Your task to perform on an android device: Open calendar and show me the third week of next month Image 0: 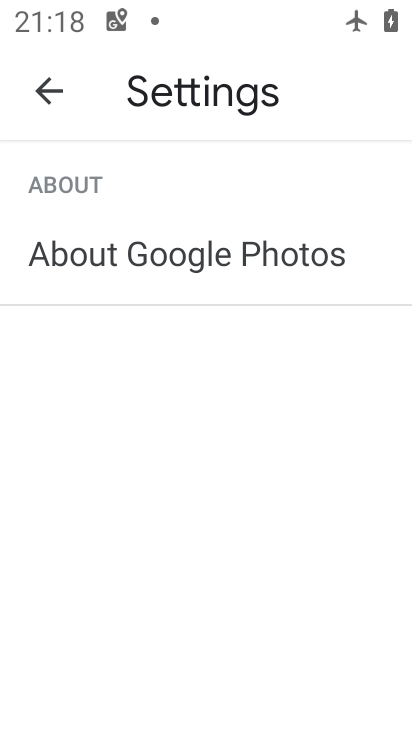
Step 0: click (56, 88)
Your task to perform on an android device: Open calendar and show me the third week of next month Image 1: 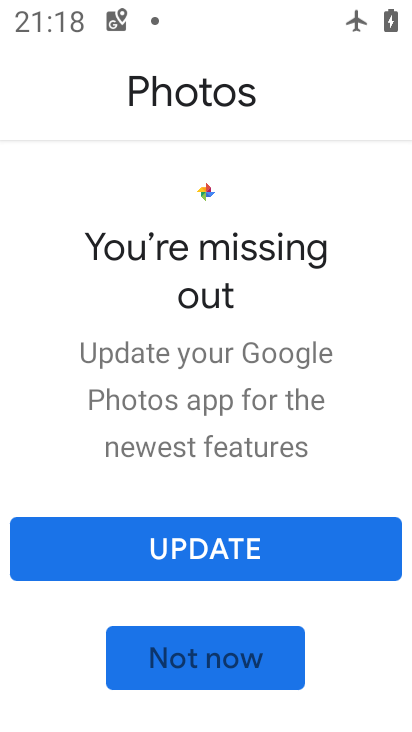
Step 1: press back button
Your task to perform on an android device: Open calendar and show me the third week of next month Image 2: 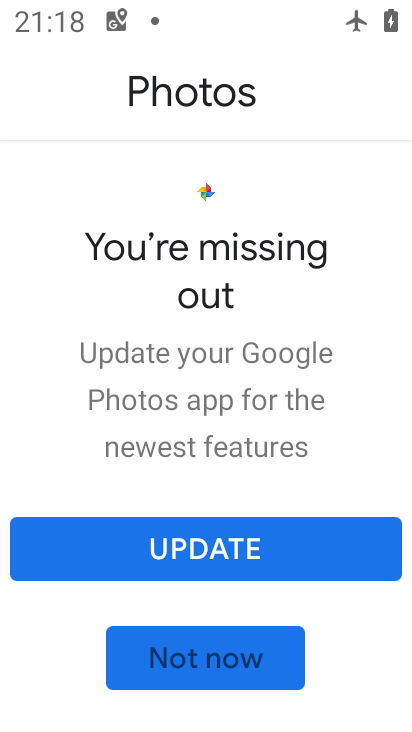
Step 2: press back button
Your task to perform on an android device: Open calendar and show me the third week of next month Image 3: 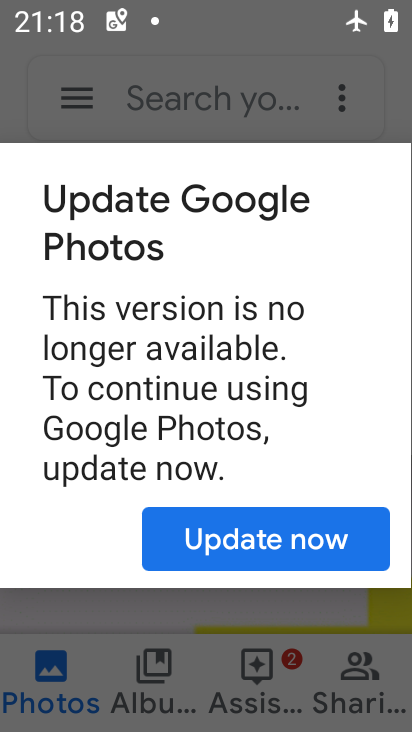
Step 3: press back button
Your task to perform on an android device: Open calendar and show me the third week of next month Image 4: 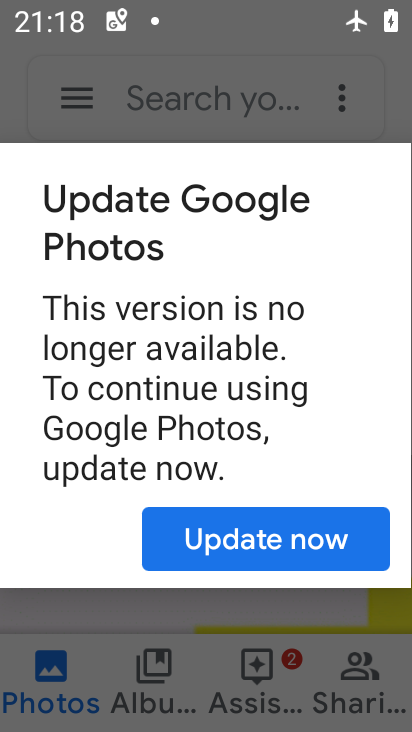
Step 4: click (209, 660)
Your task to perform on an android device: Open calendar and show me the third week of next month Image 5: 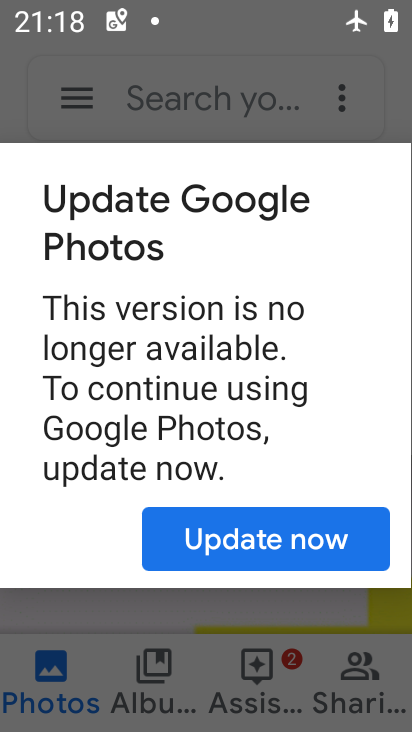
Step 5: press home button
Your task to perform on an android device: Open calendar and show me the third week of next month Image 6: 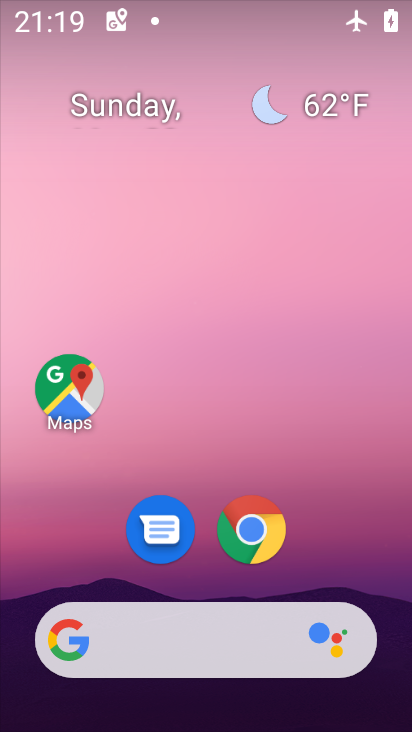
Step 6: drag from (349, 681) to (229, 88)
Your task to perform on an android device: Open calendar and show me the third week of next month Image 7: 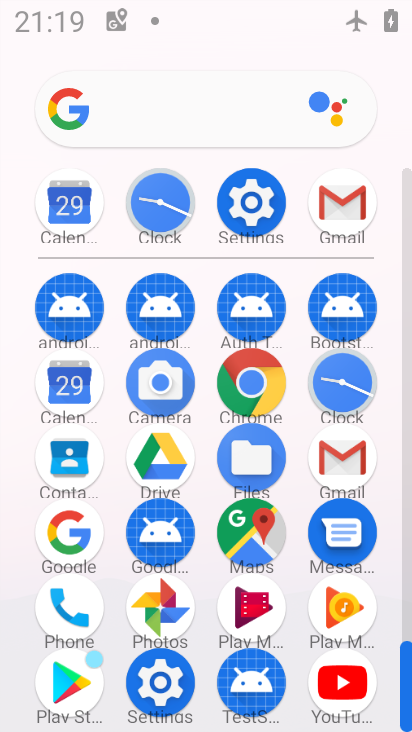
Step 7: drag from (246, 640) to (140, 45)
Your task to perform on an android device: Open calendar and show me the third week of next month Image 8: 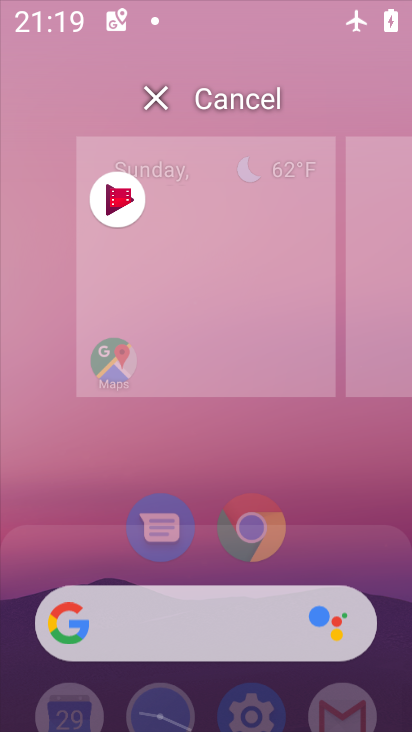
Step 8: click (165, 9)
Your task to perform on an android device: Open calendar and show me the third week of next month Image 9: 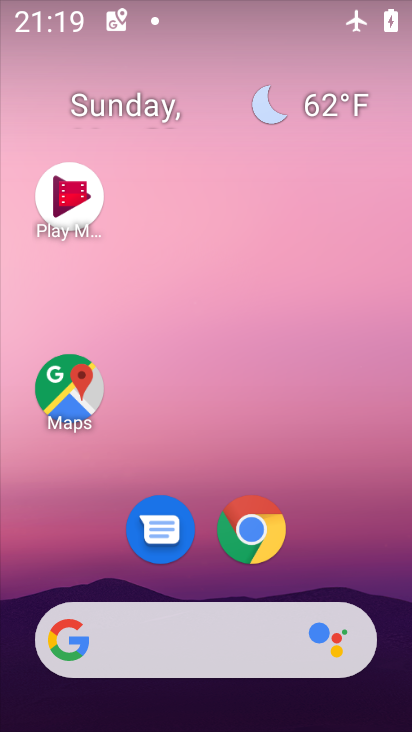
Step 9: press back button
Your task to perform on an android device: Open calendar and show me the third week of next month Image 10: 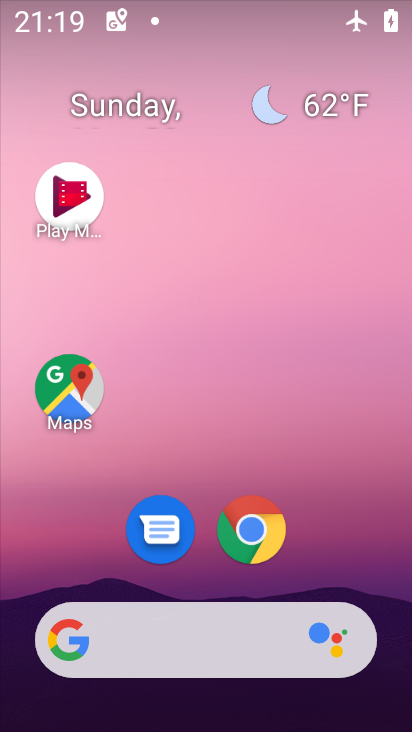
Step 10: press back button
Your task to perform on an android device: Open calendar and show me the third week of next month Image 11: 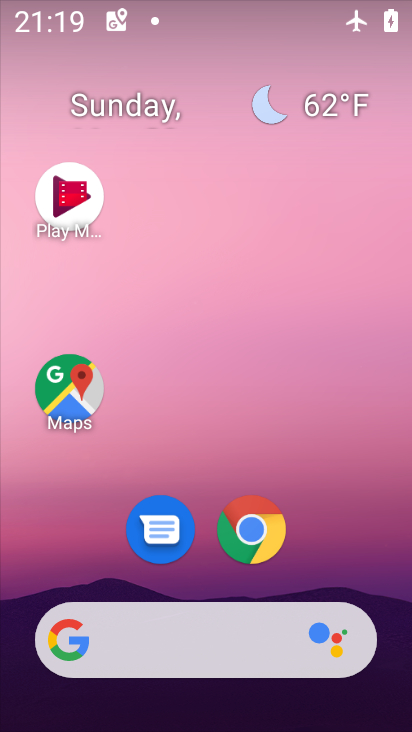
Step 11: press back button
Your task to perform on an android device: Open calendar and show me the third week of next month Image 12: 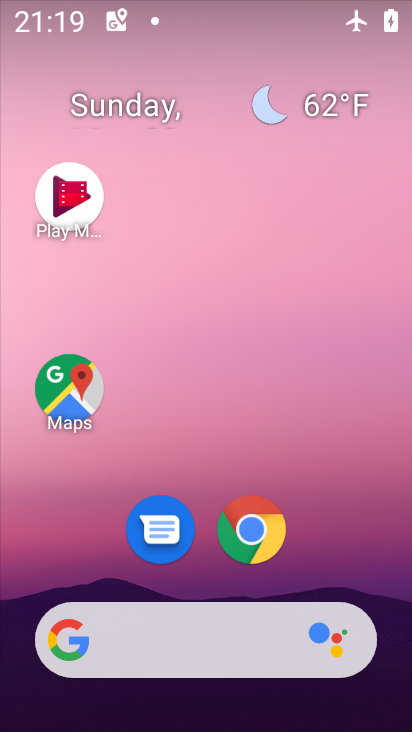
Step 12: drag from (317, 691) to (113, 2)
Your task to perform on an android device: Open calendar and show me the third week of next month Image 13: 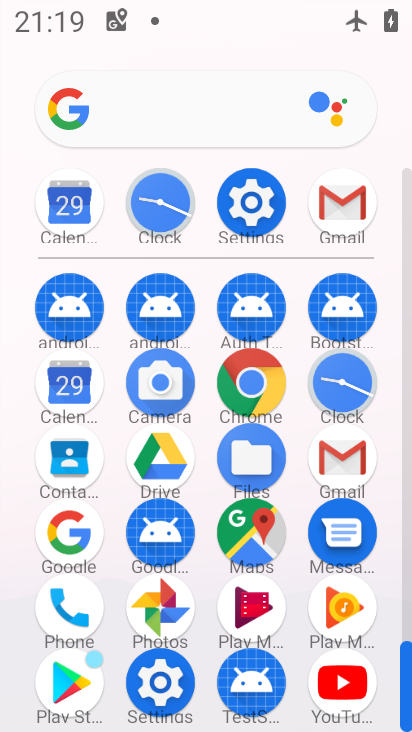
Step 13: drag from (295, 639) to (121, 73)
Your task to perform on an android device: Open calendar and show me the third week of next month Image 14: 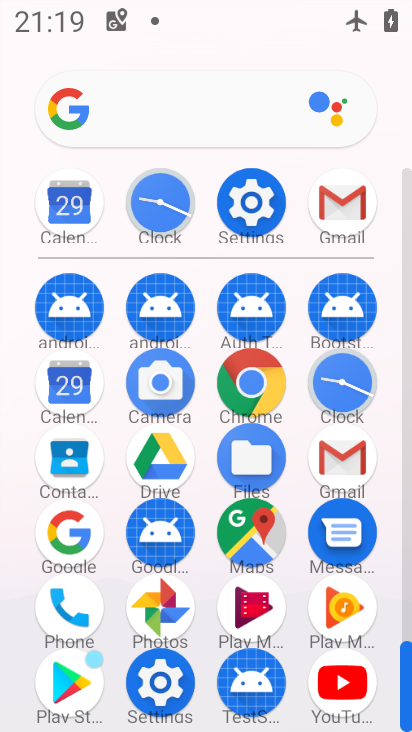
Step 14: click (59, 389)
Your task to perform on an android device: Open calendar and show me the third week of next month Image 15: 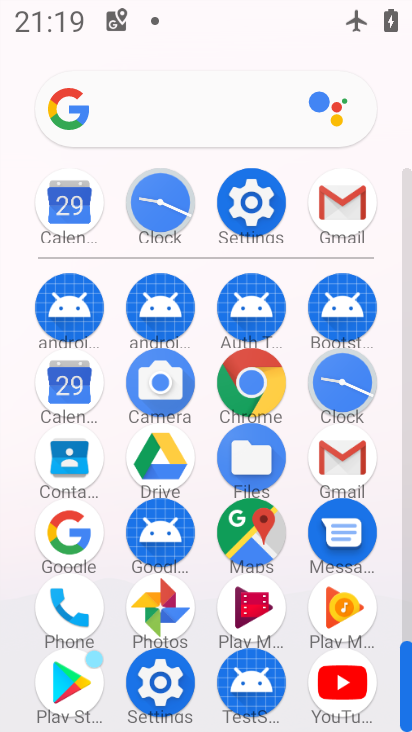
Step 15: click (67, 388)
Your task to perform on an android device: Open calendar and show me the third week of next month Image 16: 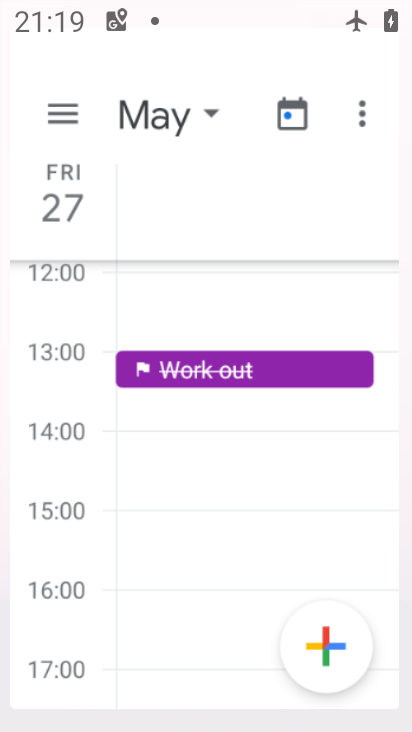
Step 16: click (71, 387)
Your task to perform on an android device: Open calendar and show me the third week of next month Image 17: 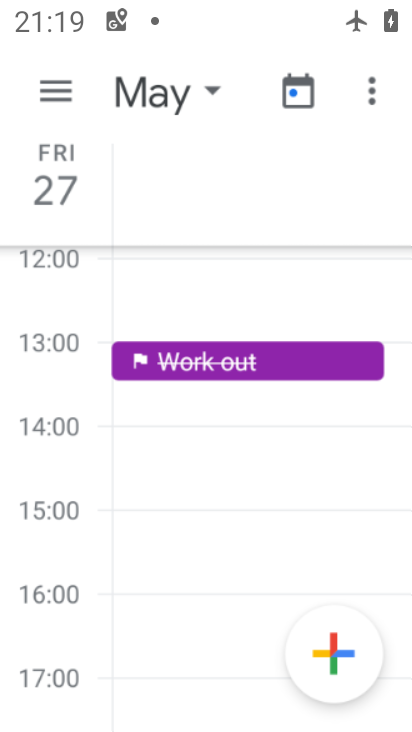
Step 17: click (71, 387)
Your task to perform on an android device: Open calendar and show me the third week of next month Image 18: 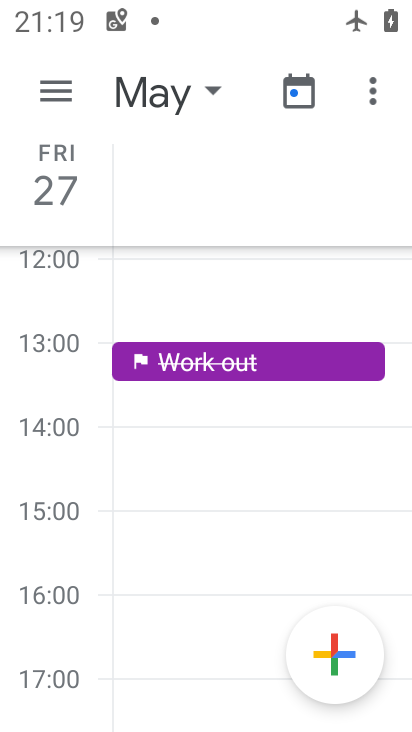
Step 18: click (71, 386)
Your task to perform on an android device: Open calendar and show me the third week of next month Image 19: 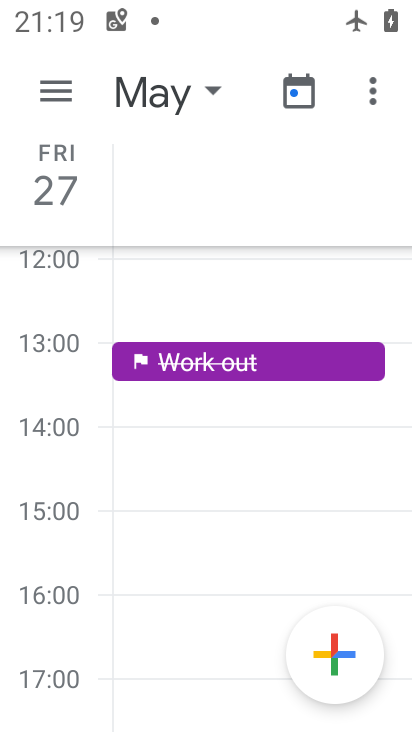
Step 19: click (369, 99)
Your task to perform on an android device: Open calendar and show me the third week of next month Image 20: 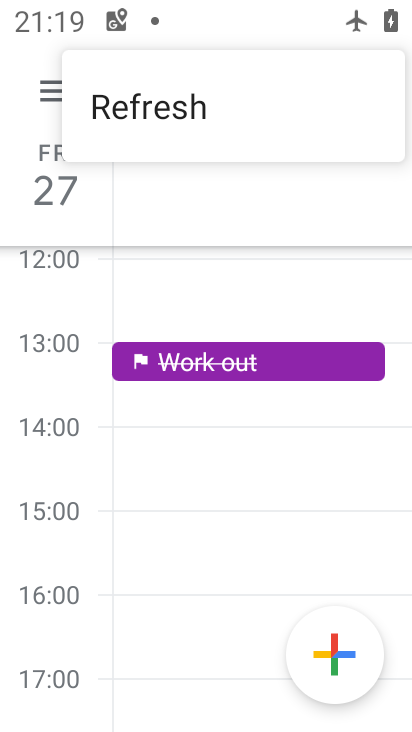
Step 20: click (211, 97)
Your task to perform on an android device: Open calendar and show me the third week of next month Image 21: 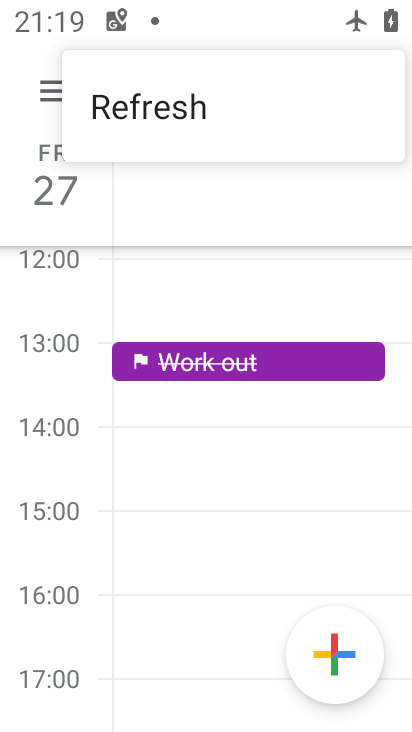
Step 21: click (218, 90)
Your task to perform on an android device: Open calendar and show me the third week of next month Image 22: 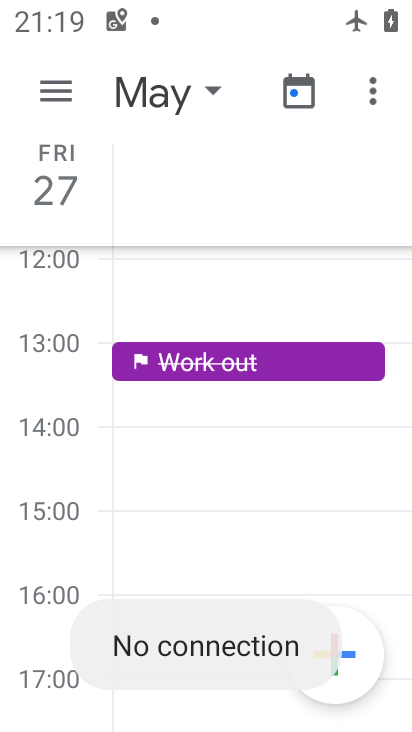
Step 22: click (191, 216)
Your task to perform on an android device: Open calendar and show me the third week of next month Image 23: 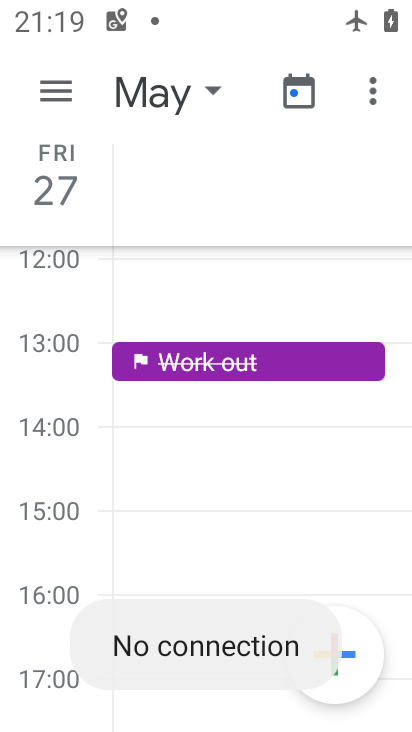
Step 23: click (191, 215)
Your task to perform on an android device: Open calendar and show me the third week of next month Image 24: 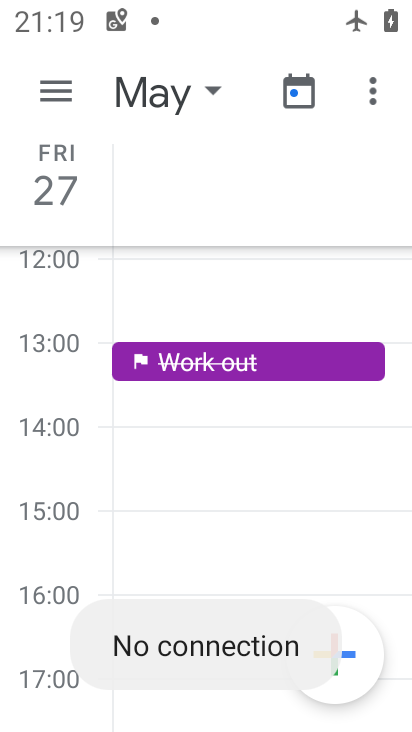
Step 24: click (216, 79)
Your task to perform on an android device: Open calendar and show me the third week of next month Image 25: 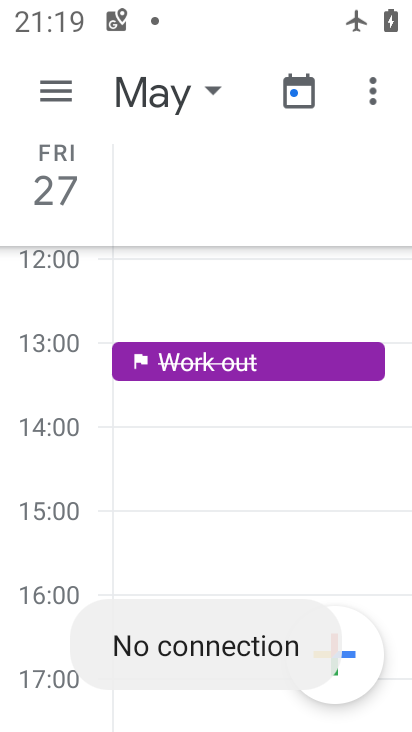
Step 25: click (217, 81)
Your task to perform on an android device: Open calendar and show me the third week of next month Image 26: 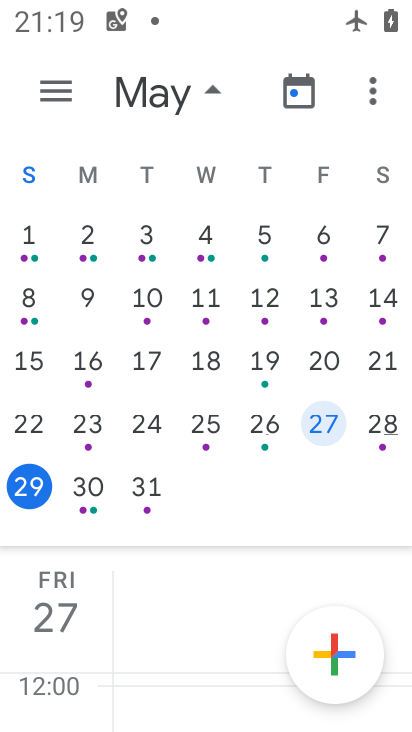
Step 26: drag from (293, 329) to (8, 363)
Your task to perform on an android device: Open calendar and show me the third week of next month Image 27: 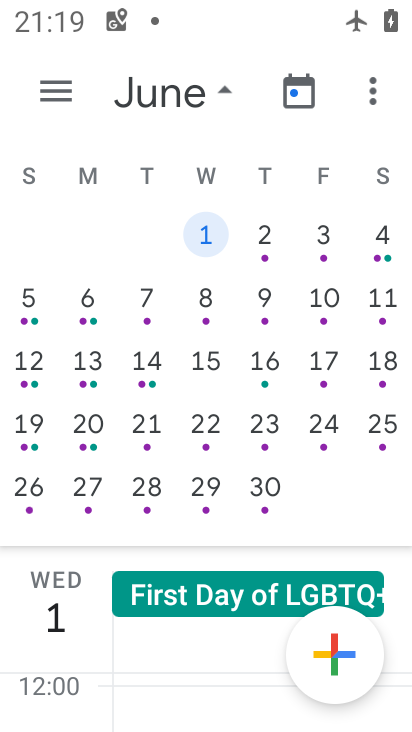
Step 27: click (204, 360)
Your task to perform on an android device: Open calendar and show me the third week of next month Image 28: 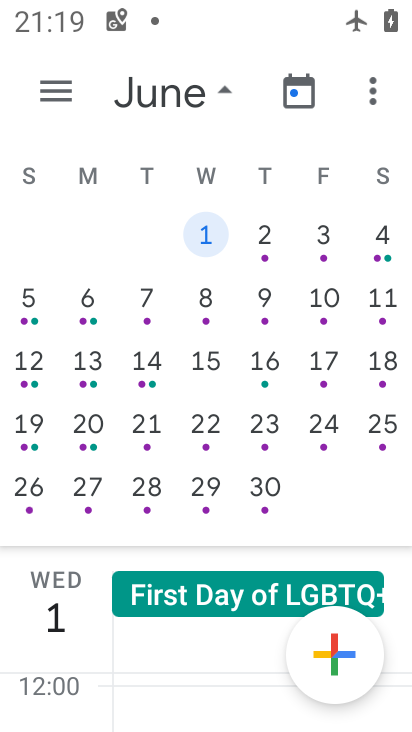
Step 28: click (205, 358)
Your task to perform on an android device: Open calendar and show me the third week of next month Image 29: 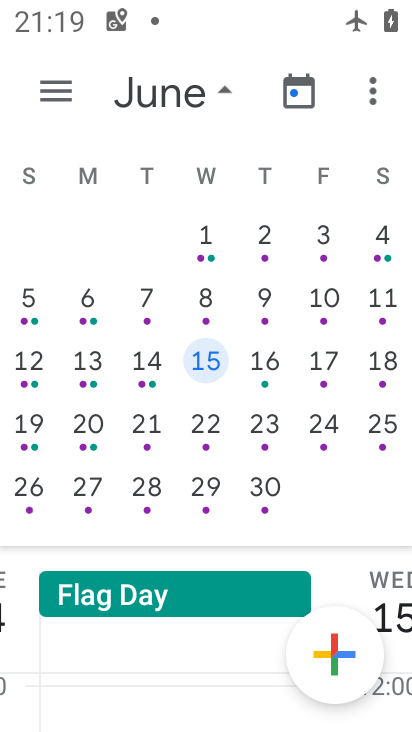
Step 29: click (205, 358)
Your task to perform on an android device: Open calendar and show me the third week of next month Image 30: 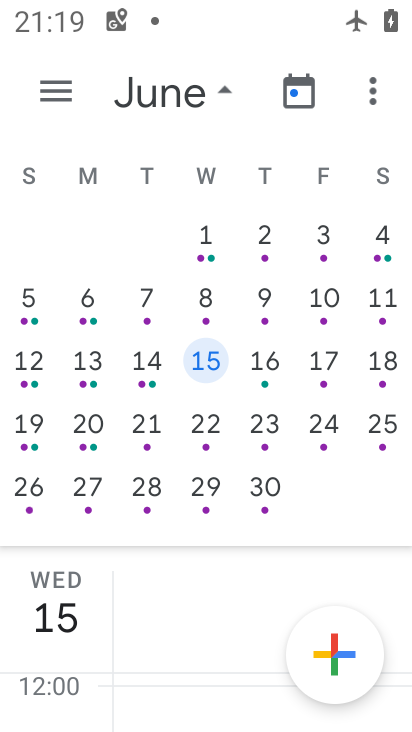
Step 30: click (205, 358)
Your task to perform on an android device: Open calendar and show me the third week of next month Image 31: 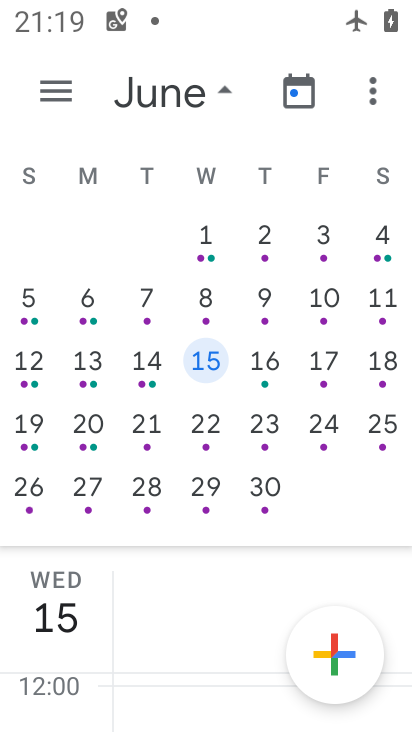
Step 31: click (205, 358)
Your task to perform on an android device: Open calendar and show me the third week of next month Image 32: 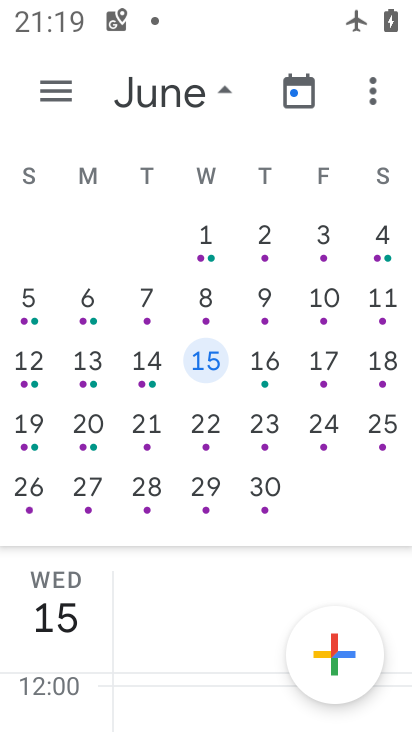
Step 32: task complete